Your task to perform on an android device: see sites visited before in the chrome app Image 0: 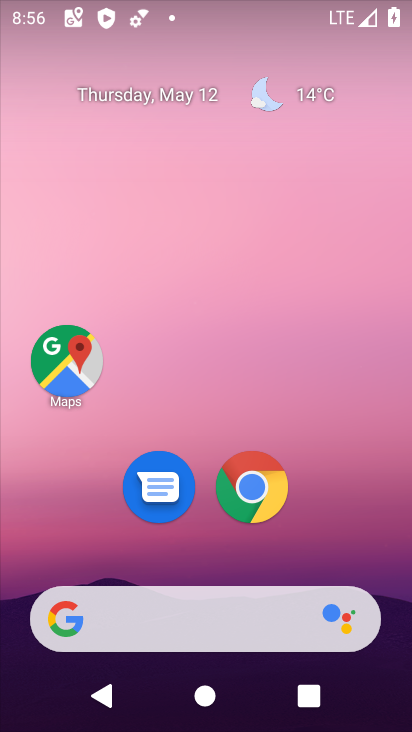
Step 0: click (258, 500)
Your task to perform on an android device: see sites visited before in the chrome app Image 1: 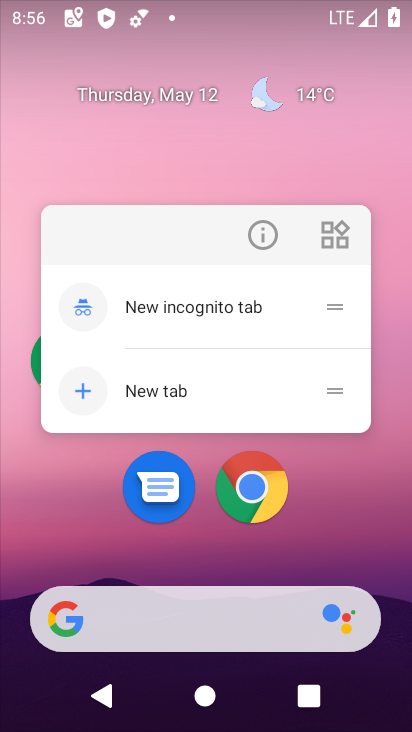
Step 1: click (269, 485)
Your task to perform on an android device: see sites visited before in the chrome app Image 2: 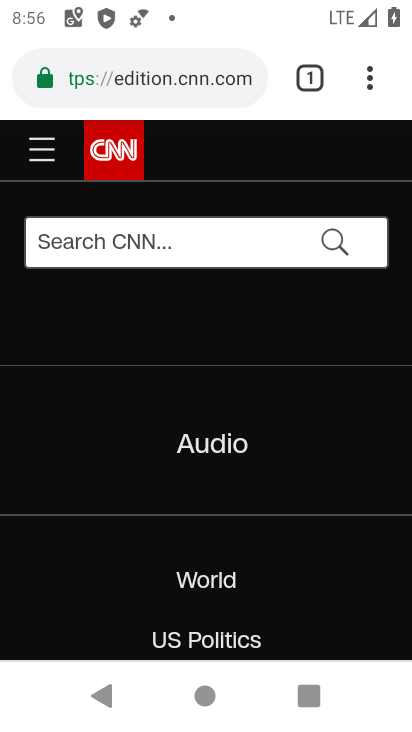
Step 2: click (362, 71)
Your task to perform on an android device: see sites visited before in the chrome app Image 3: 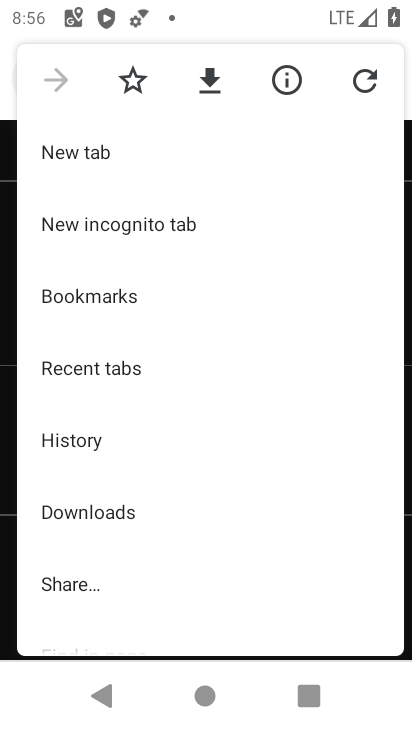
Step 3: click (89, 441)
Your task to perform on an android device: see sites visited before in the chrome app Image 4: 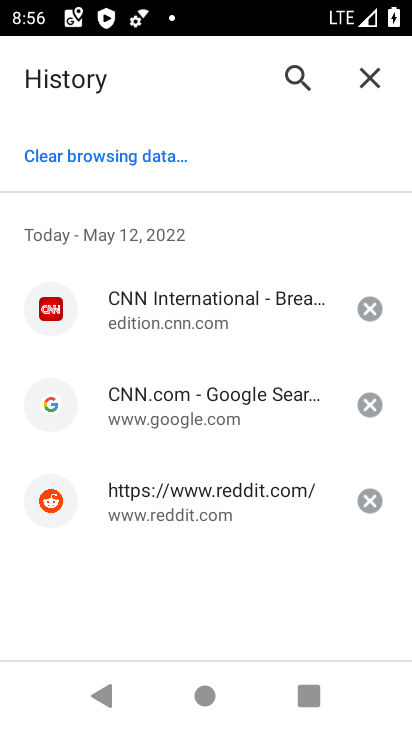
Step 4: task complete